Your task to perform on an android device: Go to network settings Image 0: 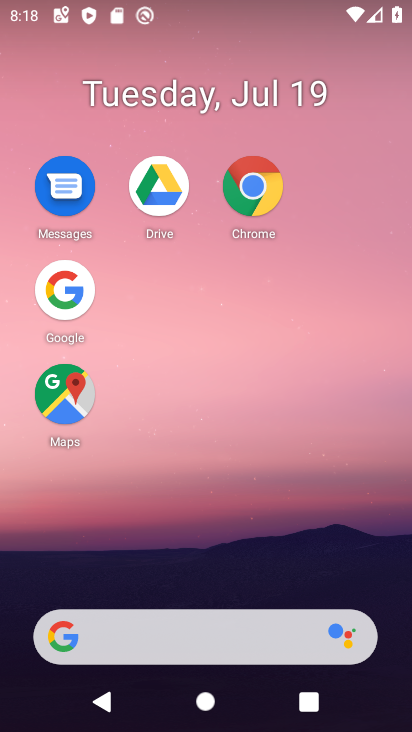
Step 0: click (252, 193)
Your task to perform on an android device: Go to network settings Image 1: 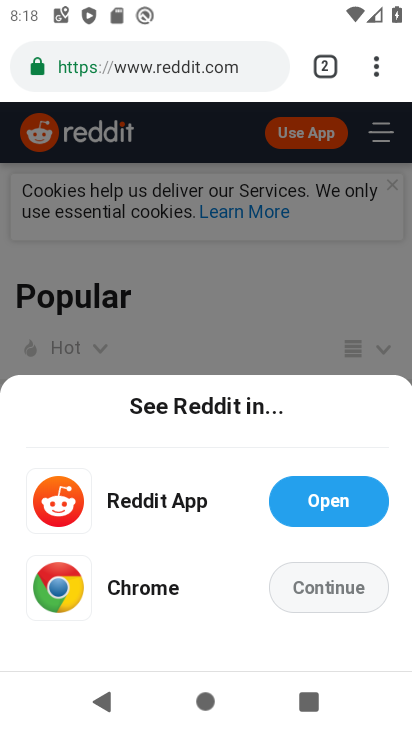
Step 1: press home button
Your task to perform on an android device: Go to network settings Image 2: 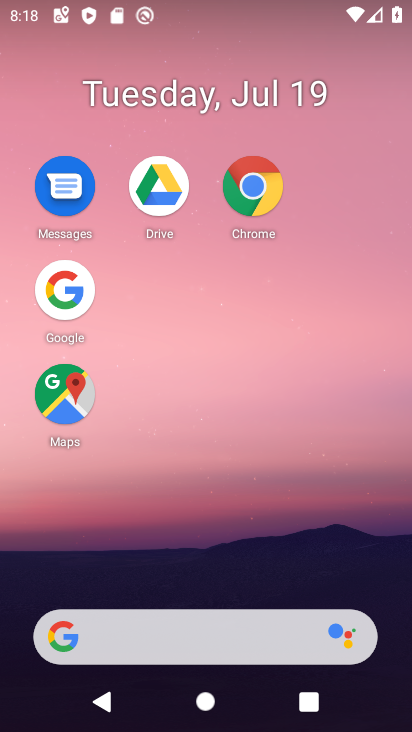
Step 2: drag from (214, 585) to (304, 16)
Your task to perform on an android device: Go to network settings Image 3: 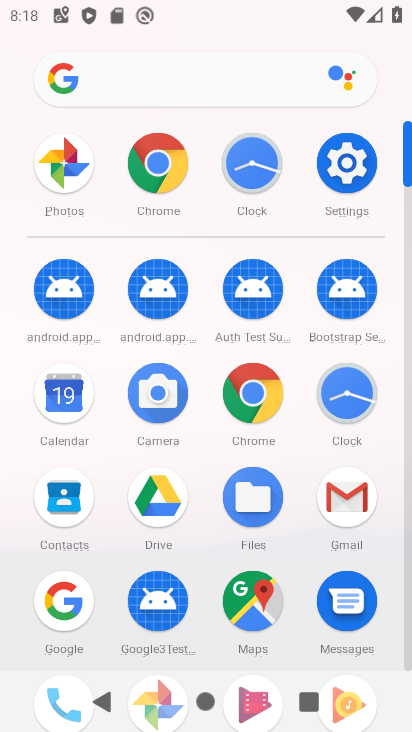
Step 3: click (354, 173)
Your task to perform on an android device: Go to network settings Image 4: 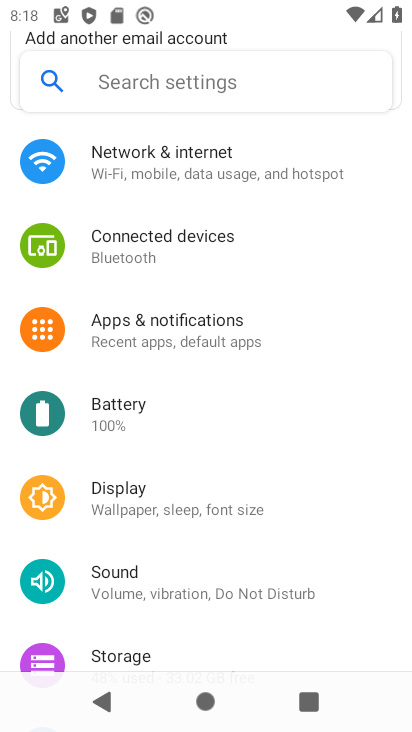
Step 4: click (176, 181)
Your task to perform on an android device: Go to network settings Image 5: 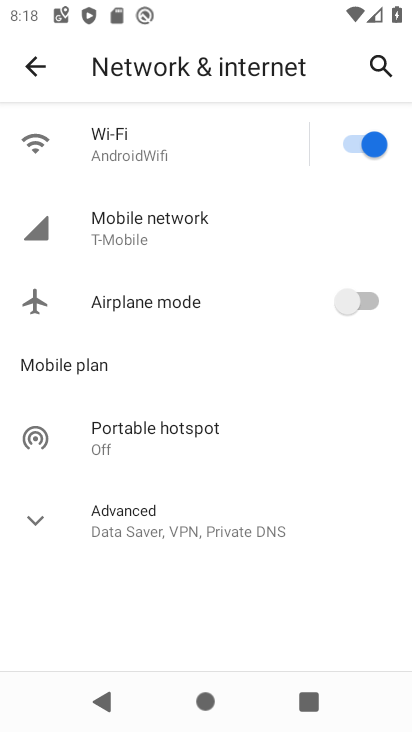
Step 5: click (151, 208)
Your task to perform on an android device: Go to network settings Image 6: 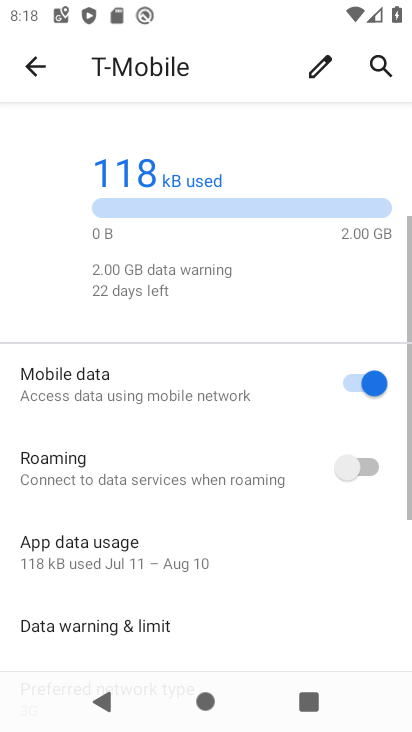
Step 6: task complete